Your task to perform on an android device: What's the weather going to be tomorrow? Image 0: 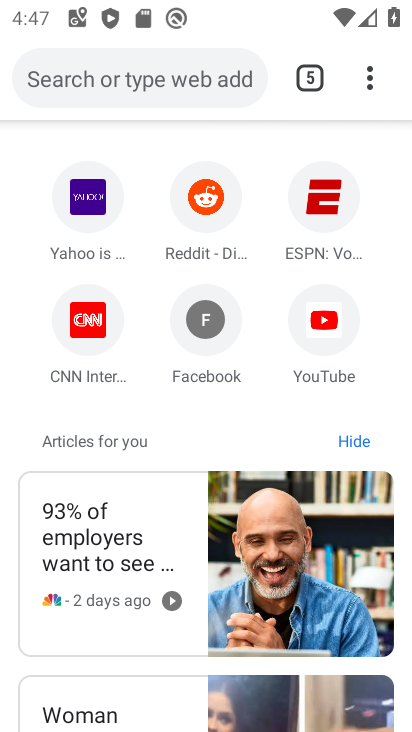
Step 0: press back button
Your task to perform on an android device: What's the weather going to be tomorrow? Image 1: 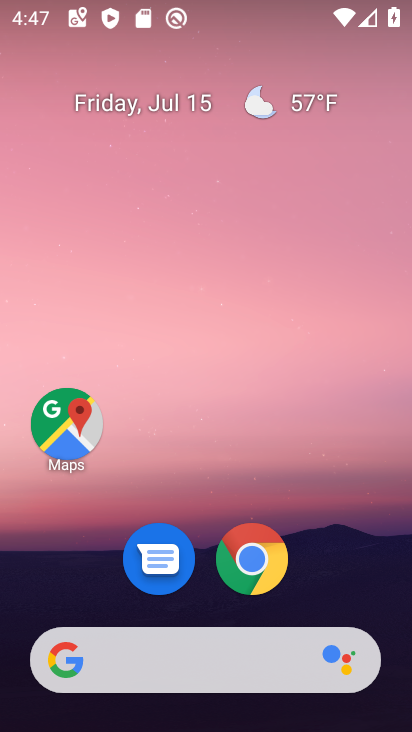
Step 1: click (201, 654)
Your task to perform on an android device: What's the weather going to be tomorrow? Image 2: 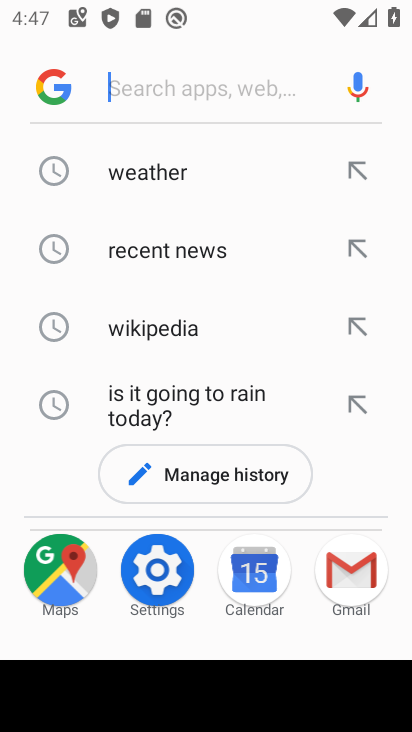
Step 2: press back button
Your task to perform on an android device: What's the weather going to be tomorrow? Image 3: 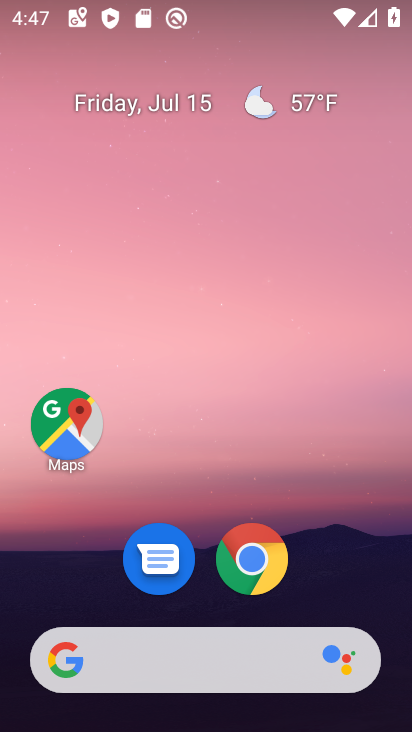
Step 3: click (267, 102)
Your task to perform on an android device: What's the weather going to be tomorrow? Image 4: 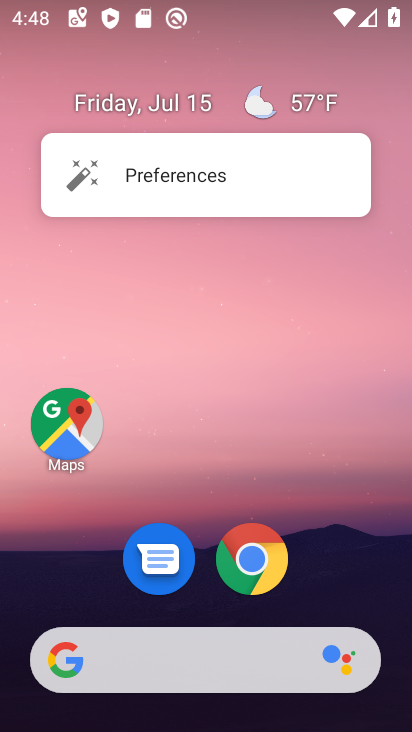
Step 4: click (253, 88)
Your task to perform on an android device: What's the weather going to be tomorrow? Image 5: 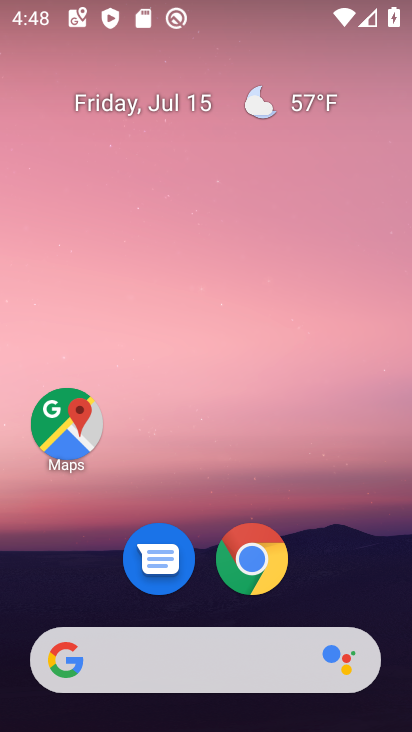
Step 5: click (260, 104)
Your task to perform on an android device: What's the weather going to be tomorrow? Image 6: 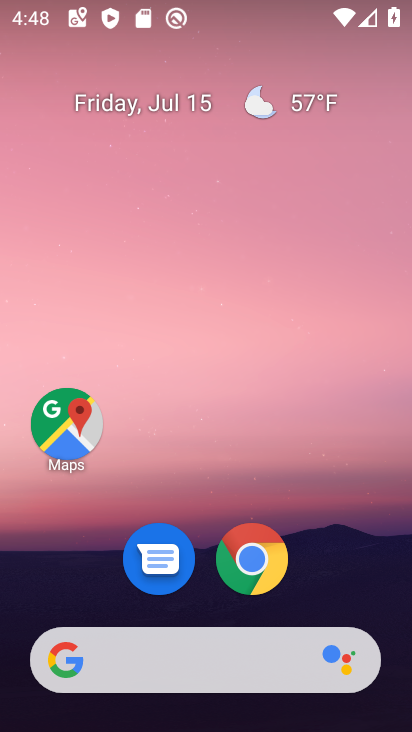
Step 6: click (264, 105)
Your task to perform on an android device: What's the weather going to be tomorrow? Image 7: 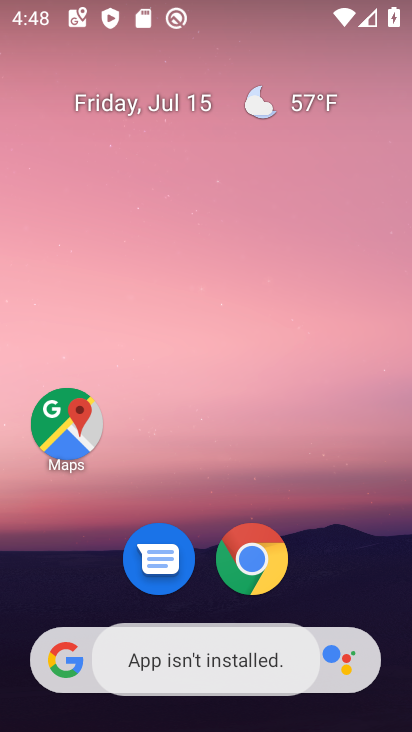
Step 7: click (91, 678)
Your task to perform on an android device: What's the weather going to be tomorrow? Image 8: 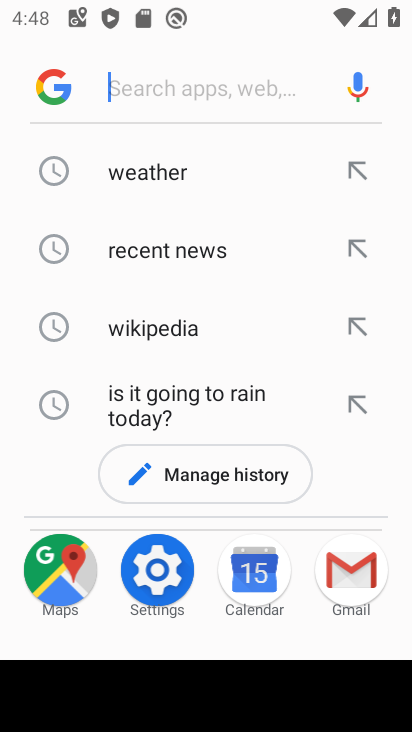
Step 8: click (122, 166)
Your task to perform on an android device: What's the weather going to be tomorrow? Image 9: 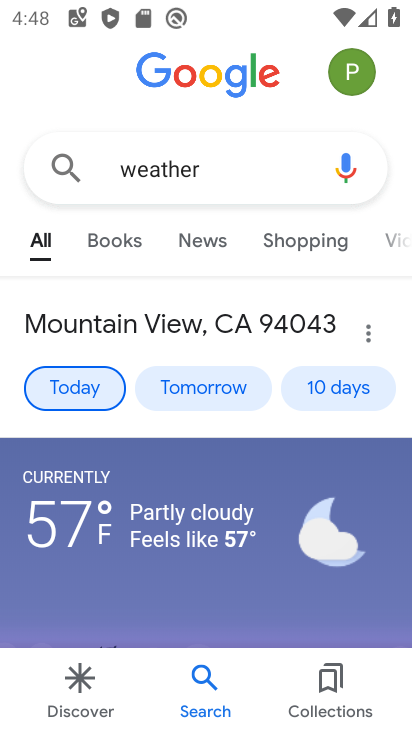
Step 9: click (183, 381)
Your task to perform on an android device: What's the weather going to be tomorrow? Image 10: 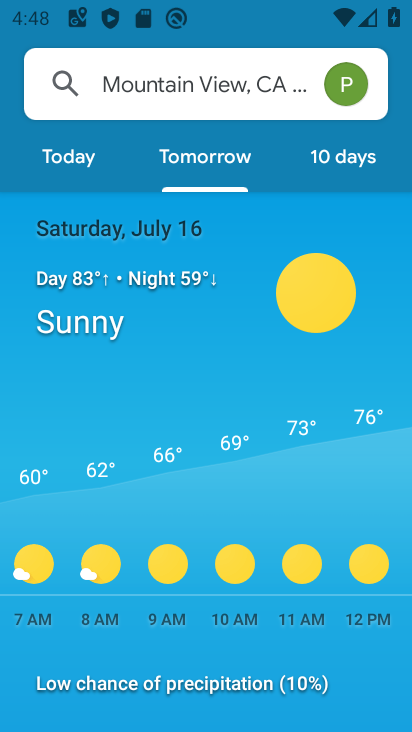
Step 10: task complete